Your task to perform on an android device: Open Google Image 0: 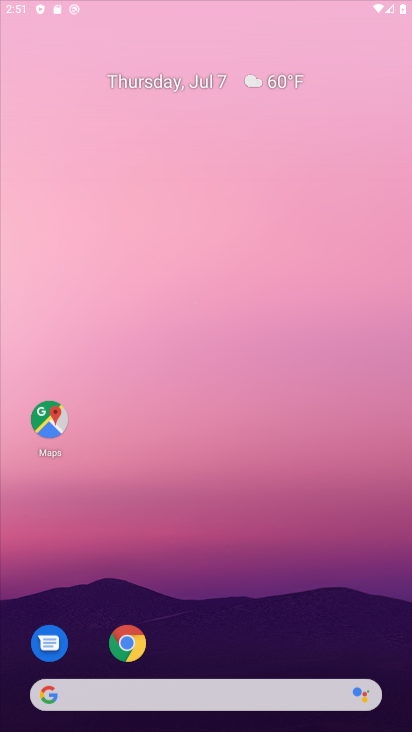
Step 0: press home button
Your task to perform on an android device: Open Google Image 1: 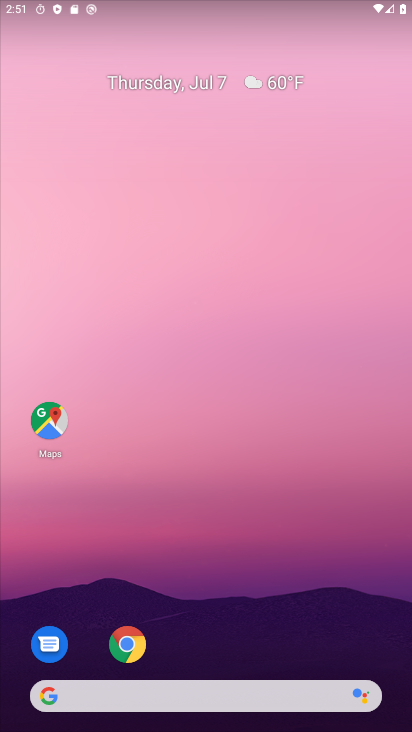
Step 1: drag from (209, 653) to (249, 94)
Your task to perform on an android device: Open Google Image 2: 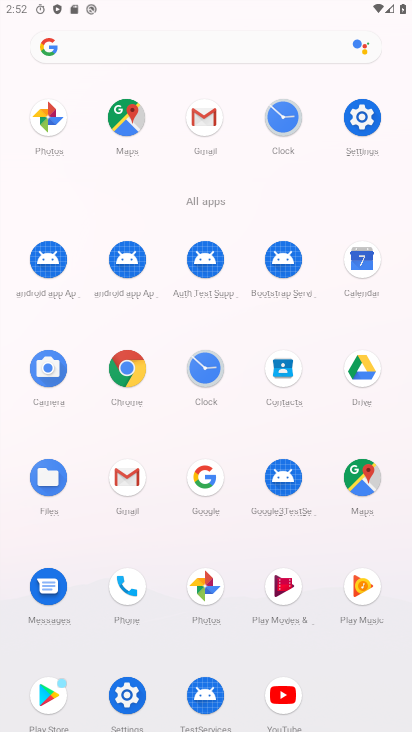
Step 2: click (202, 468)
Your task to perform on an android device: Open Google Image 3: 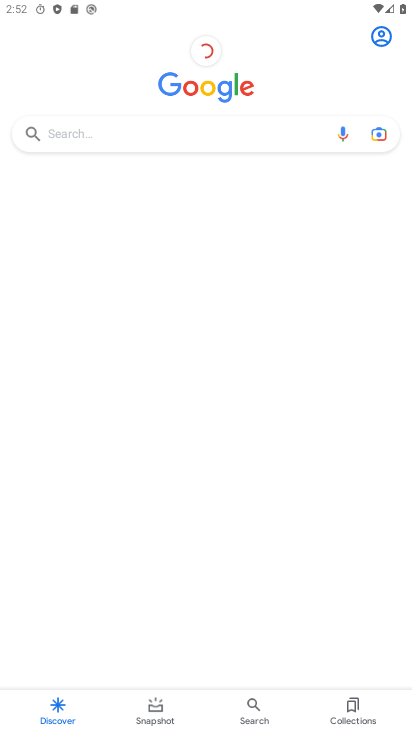
Step 3: click (350, 709)
Your task to perform on an android device: Open Google Image 4: 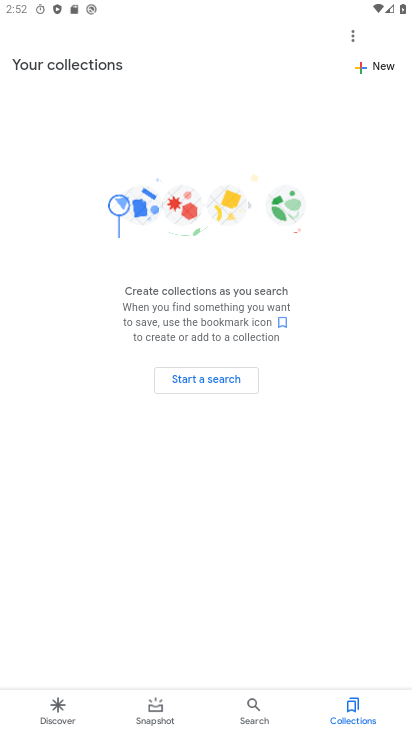
Step 4: click (159, 707)
Your task to perform on an android device: Open Google Image 5: 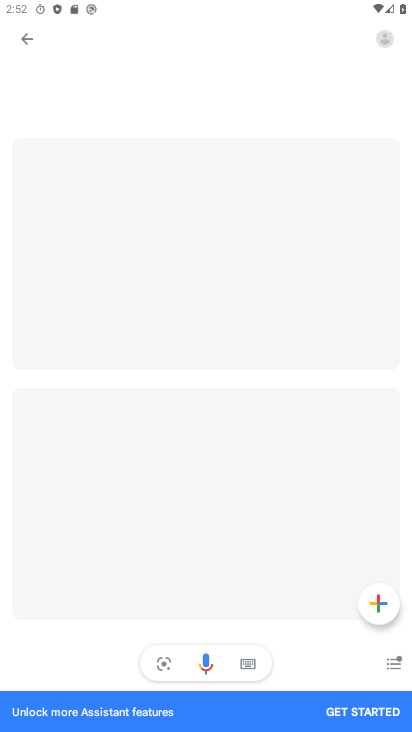
Step 5: task complete